Your task to perform on an android device: Toggle the flashlight Image 0: 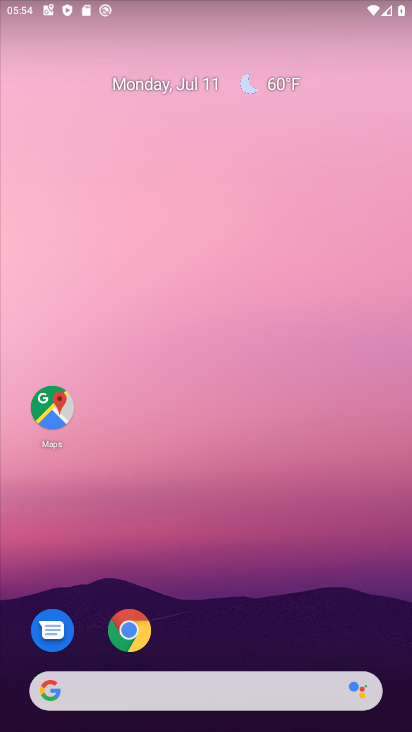
Step 0: click (131, 627)
Your task to perform on an android device: Toggle the flashlight Image 1: 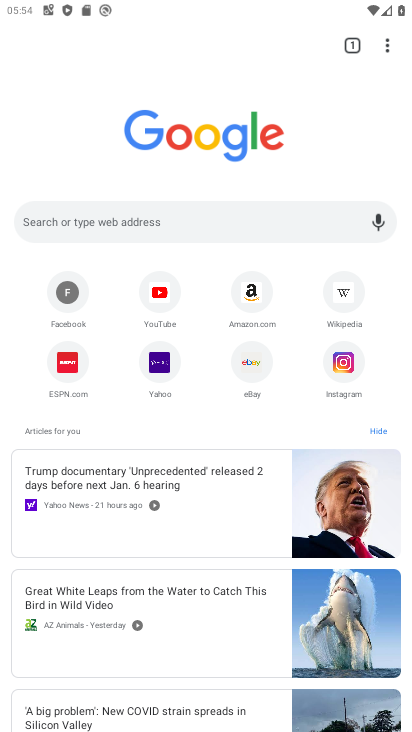
Step 1: click (251, 303)
Your task to perform on an android device: Toggle the flashlight Image 2: 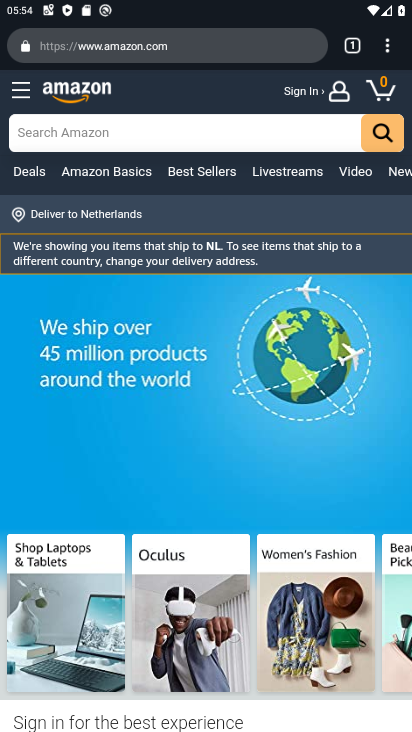
Step 2: task complete